Your task to perform on an android device: change keyboard looks Image 0: 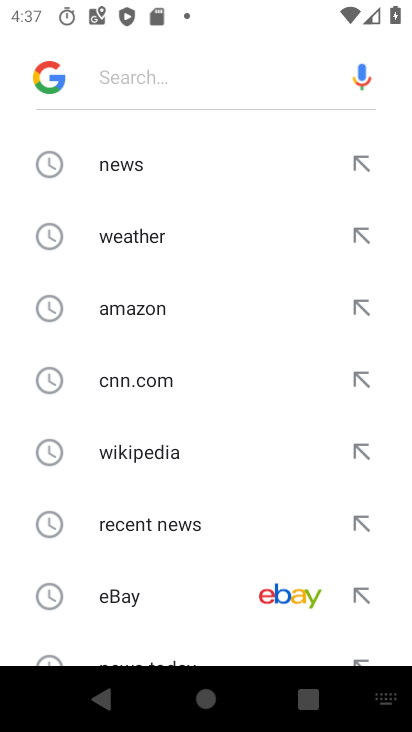
Step 0: press home button
Your task to perform on an android device: change keyboard looks Image 1: 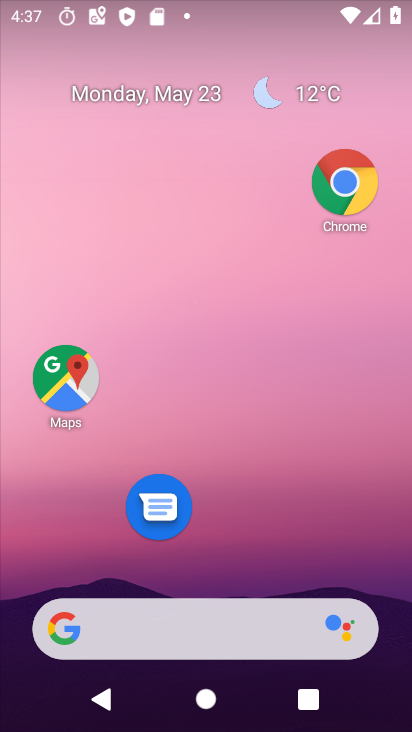
Step 1: drag from (200, 585) to (193, 59)
Your task to perform on an android device: change keyboard looks Image 2: 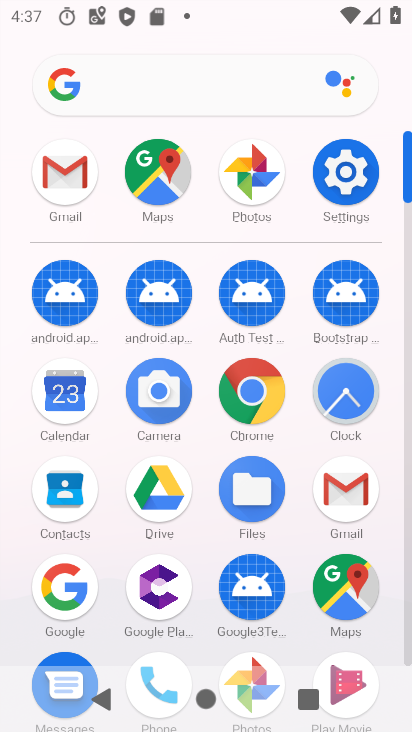
Step 2: click (342, 156)
Your task to perform on an android device: change keyboard looks Image 3: 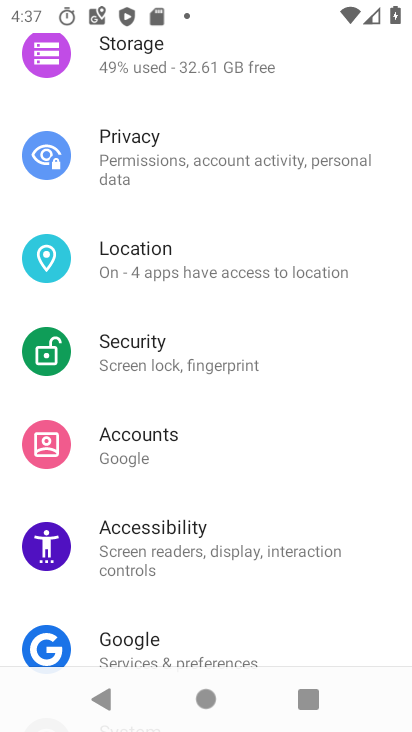
Step 3: drag from (147, 484) to (161, 128)
Your task to perform on an android device: change keyboard looks Image 4: 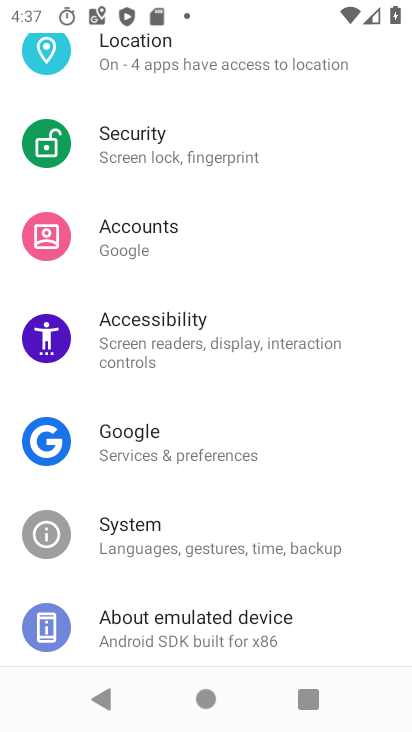
Step 4: drag from (94, 215) to (53, 652)
Your task to perform on an android device: change keyboard looks Image 5: 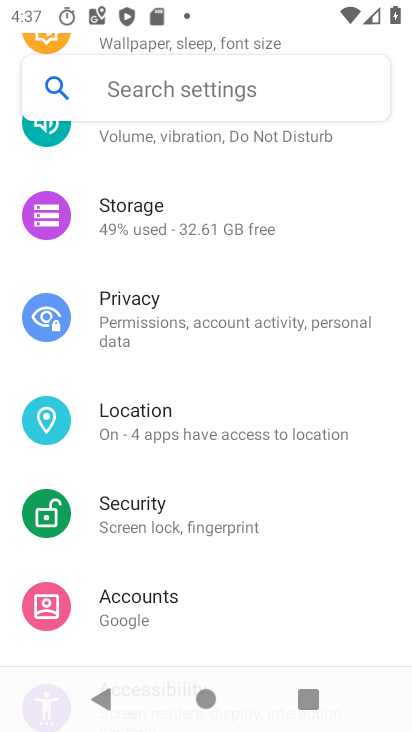
Step 5: drag from (108, 181) to (157, 577)
Your task to perform on an android device: change keyboard looks Image 6: 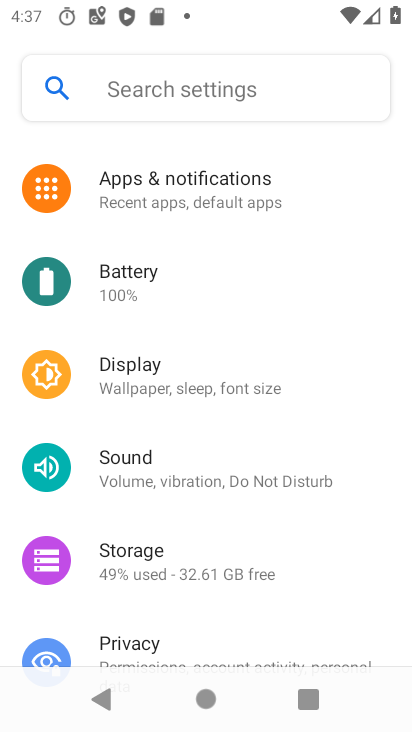
Step 6: drag from (73, 594) to (166, 129)
Your task to perform on an android device: change keyboard looks Image 7: 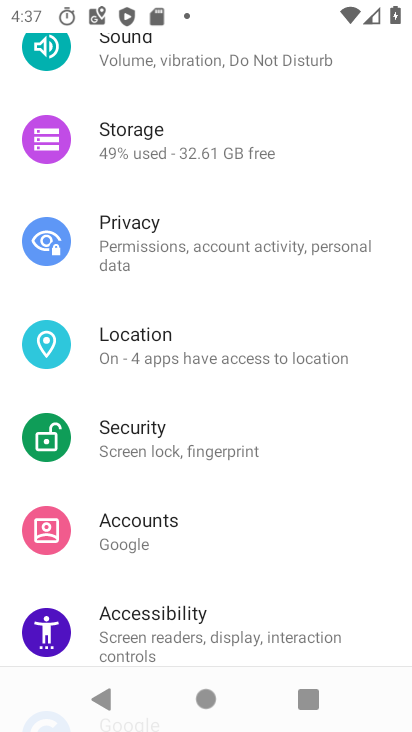
Step 7: drag from (78, 176) to (124, 543)
Your task to perform on an android device: change keyboard looks Image 8: 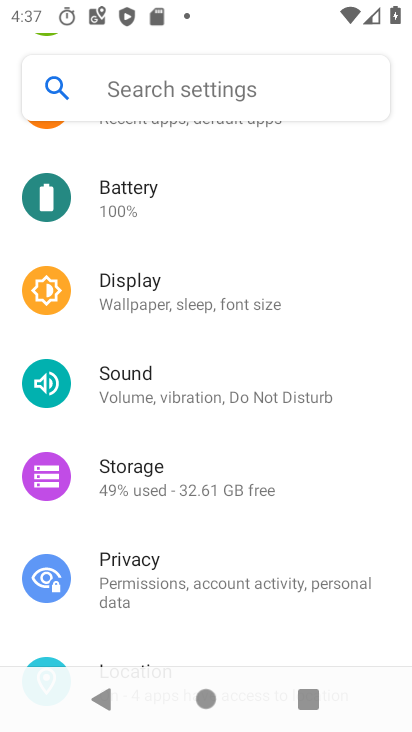
Step 8: drag from (82, 617) to (134, 425)
Your task to perform on an android device: change keyboard looks Image 9: 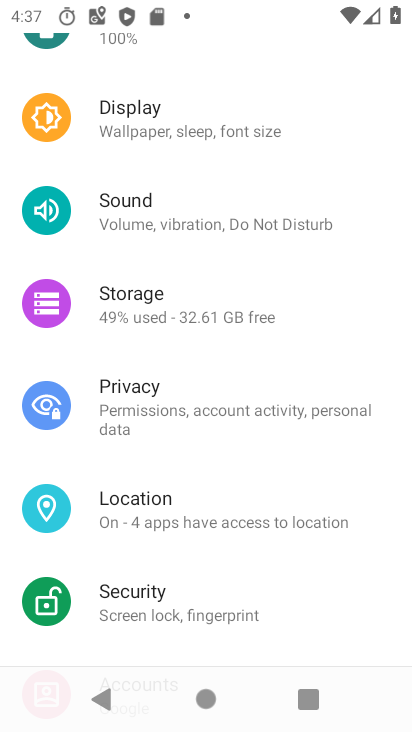
Step 9: drag from (98, 534) to (191, 144)
Your task to perform on an android device: change keyboard looks Image 10: 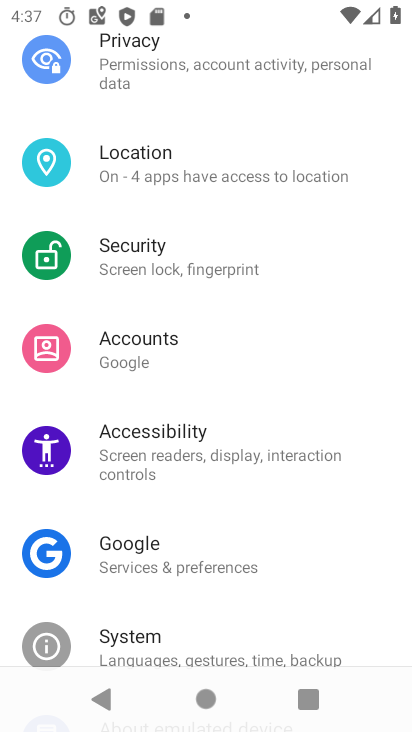
Step 10: drag from (3, 617) to (161, 252)
Your task to perform on an android device: change keyboard looks Image 11: 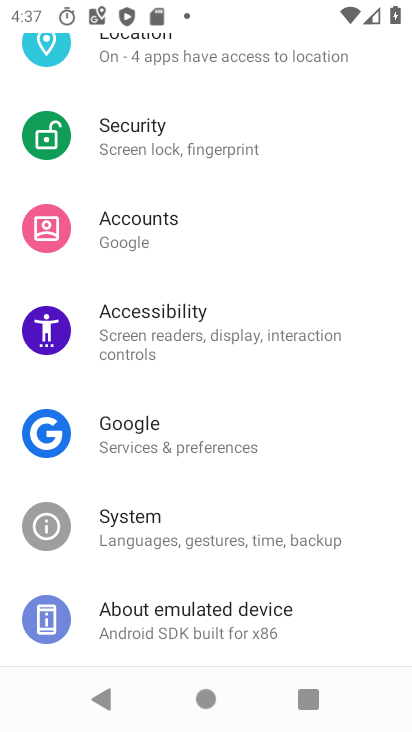
Step 11: click (114, 541)
Your task to perform on an android device: change keyboard looks Image 12: 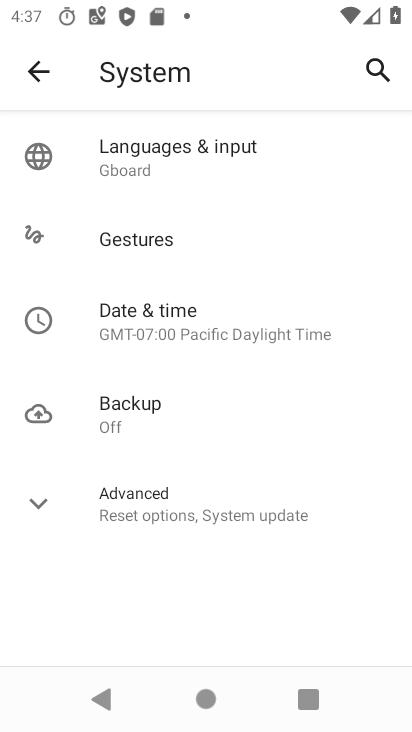
Step 12: click (146, 166)
Your task to perform on an android device: change keyboard looks Image 13: 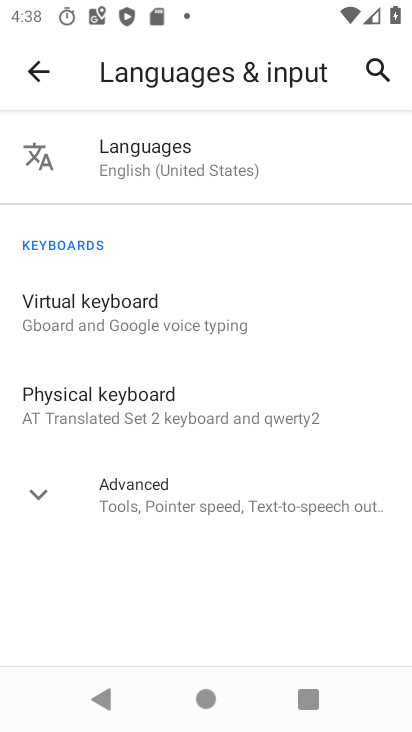
Step 13: click (152, 329)
Your task to perform on an android device: change keyboard looks Image 14: 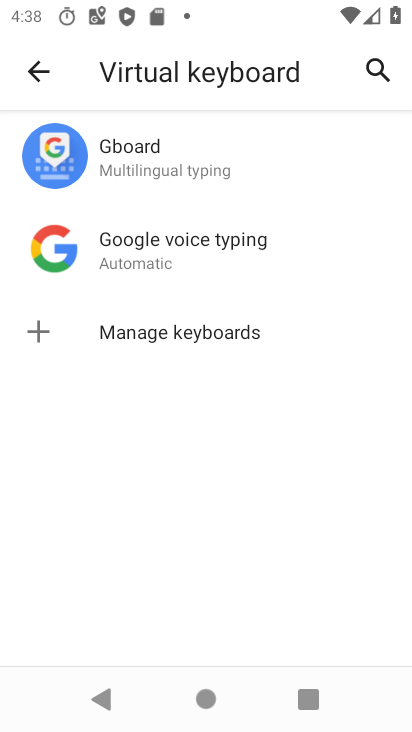
Step 14: task complete